Your task to perform on an android device: Check the news Image 0: 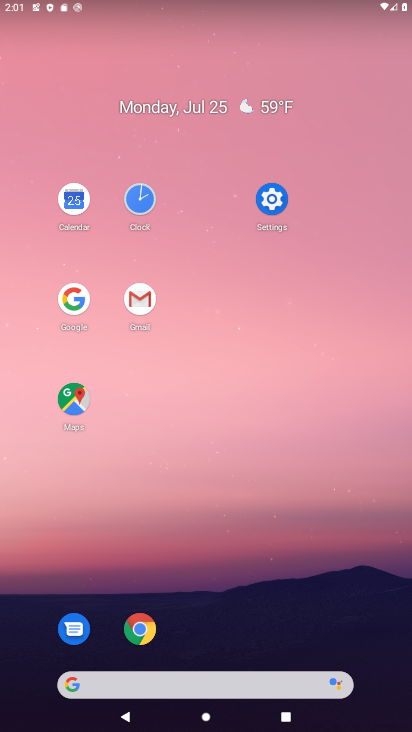
Step 0: click (80, 296)
Your task to perform on an android device: Check the news Image 1: 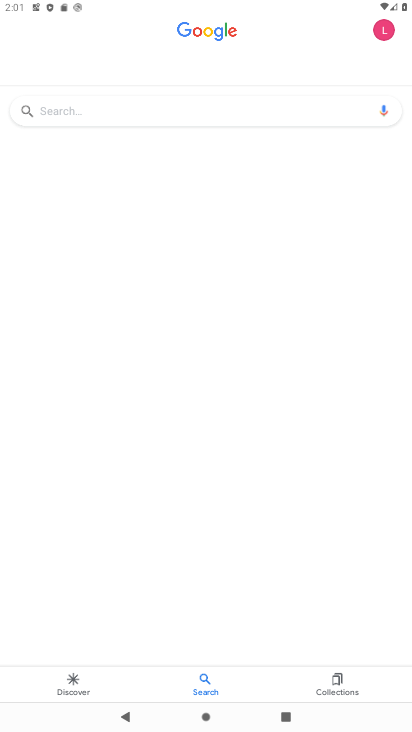
Step 1: click (207, 113)
Your task to perform on an android device: Check the news Image 2: 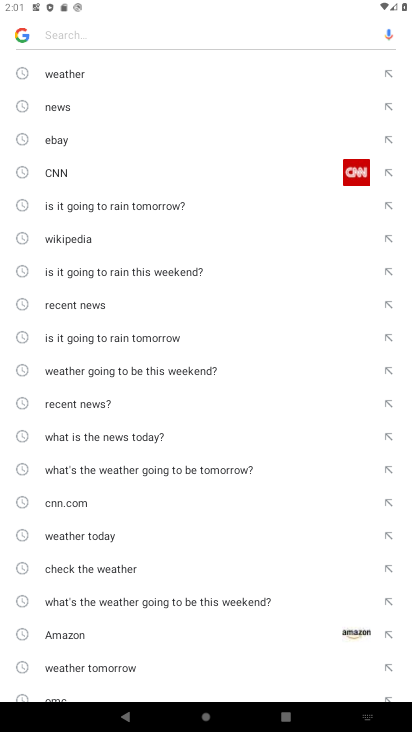
Step 2: click (56, 111)
Your task to perform on an android device: Check the news Image 3: 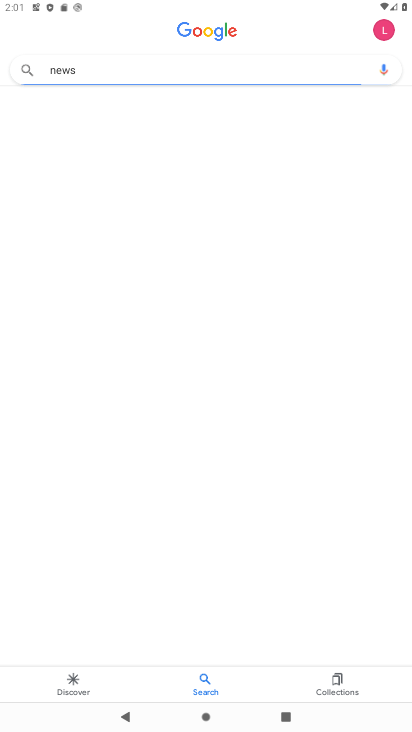
Step 3: task complete